Your task to perform on an android device: turn off wifi Image 0: 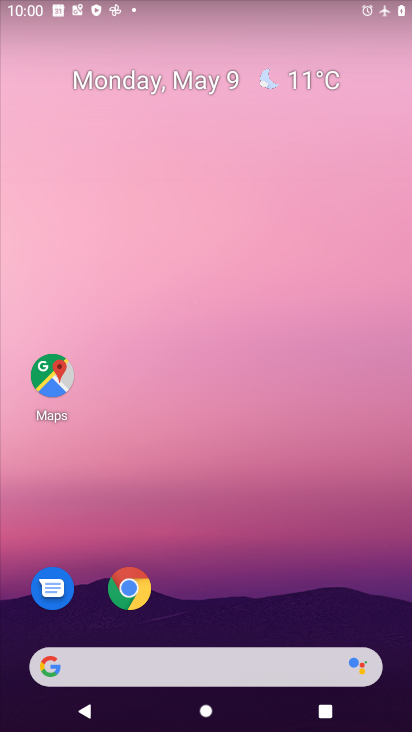
Step 0: drag from (322, 605) to (330, 113)
Your task to perform on an android device: turn off wifi Image 1: 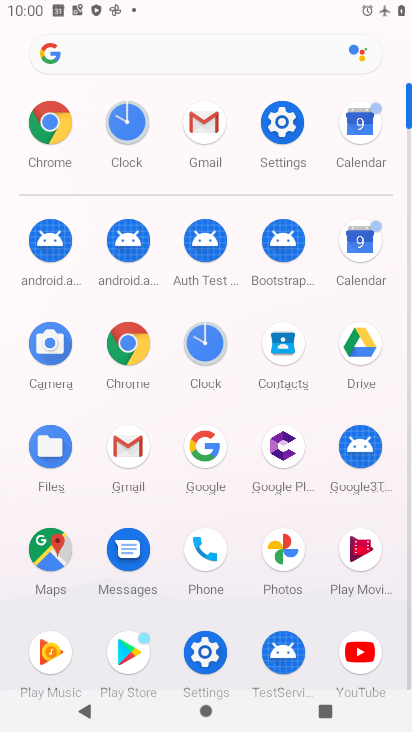
Step 1: task complete